Your task to perform on an android device: check out phone information Image 0: 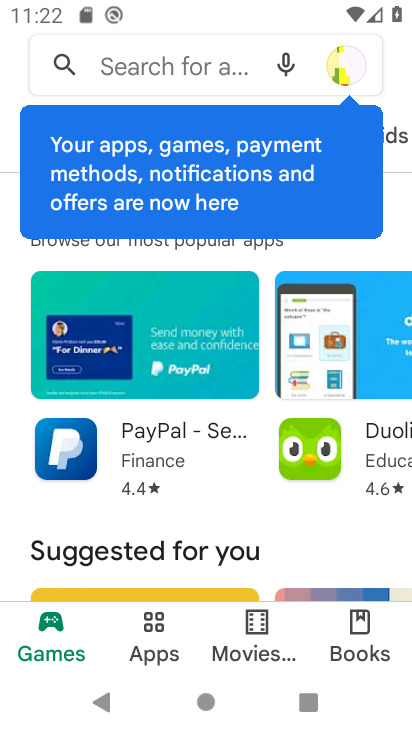
Step 0: press home button
Your task to perform on an android device: check out phone information Image 1: 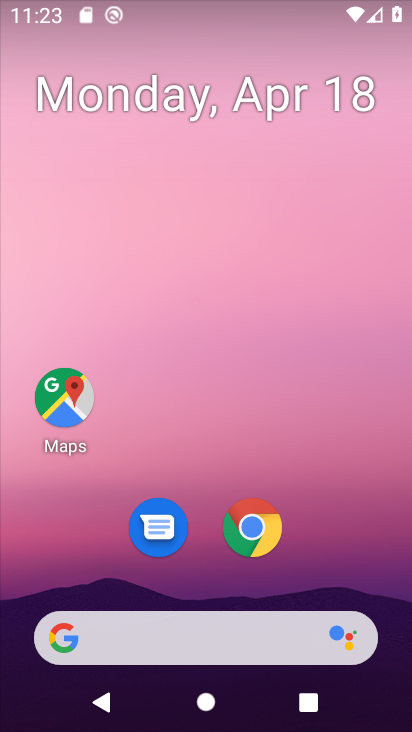
Step 1: drag from (214, 615) to (371, 39)
Your task to perform on an android device: check out phone information Image 2: 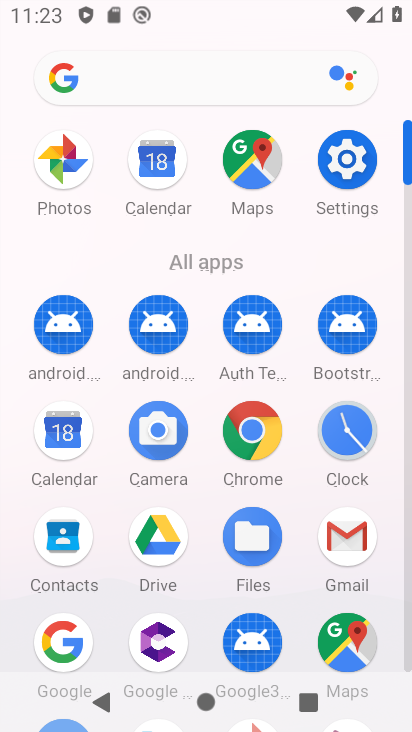
Step 2: drag from (114, 524) to (221, 265)
Your task to perform on an android device: check out phone information Image 3: 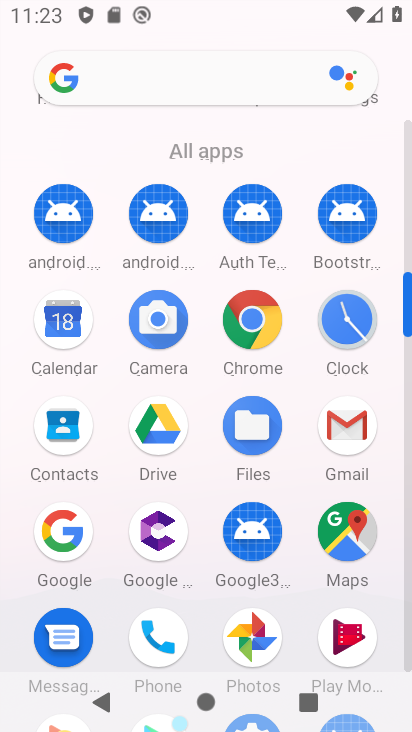
Step 3: click (146, 622)
Your task to perform on an android device: check out phone information Image 4: 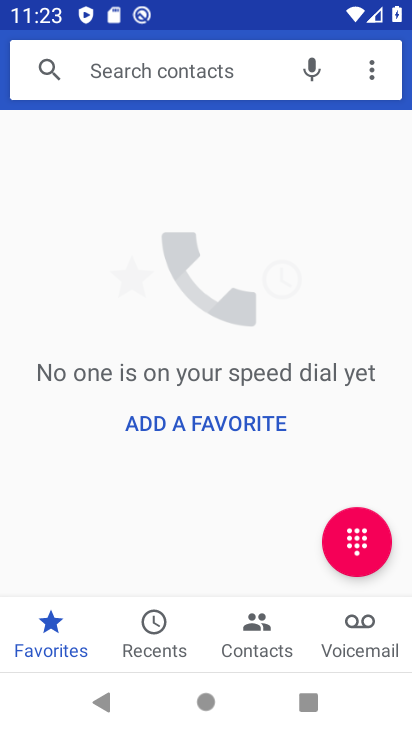
Step 4: click (361, 78)
Your task to perform on an android device: check out phone information Image 5: 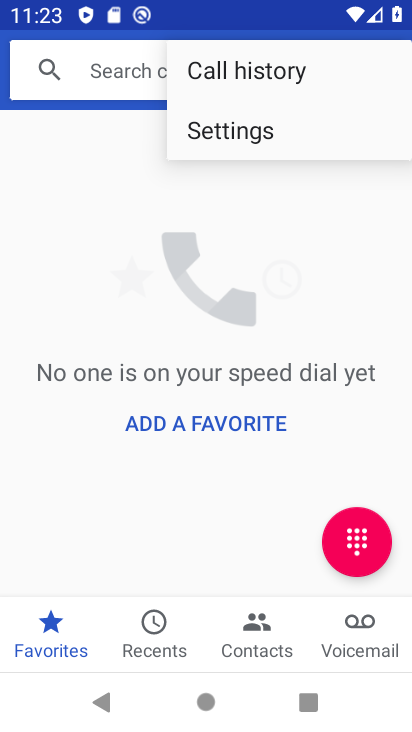
Step 5: click (250, 128)
Your task to perform on an android device: check out phone information Image 6: 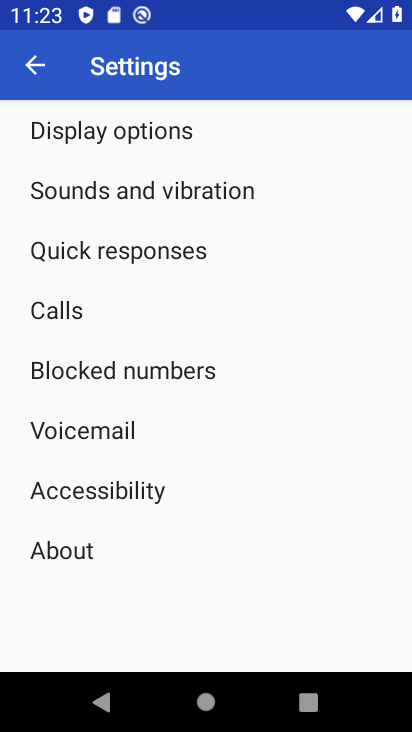
Step 6: click (52, 547)
Your task to perform on an android device: check out phone information Image 7: 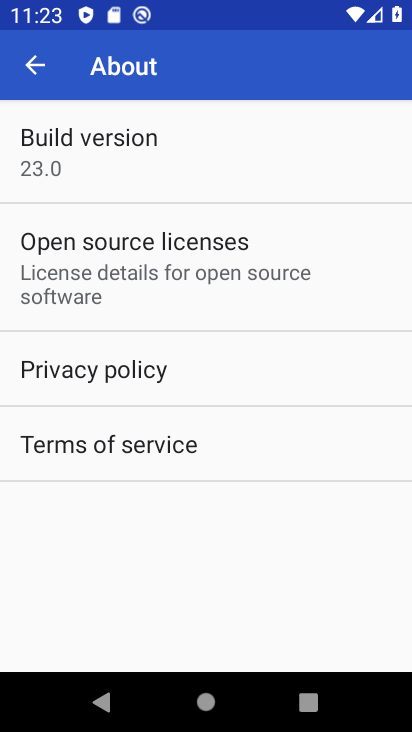
Step 7: task complete